Your task to perform on an android device: delete browsing data in the chrome app Image 0: 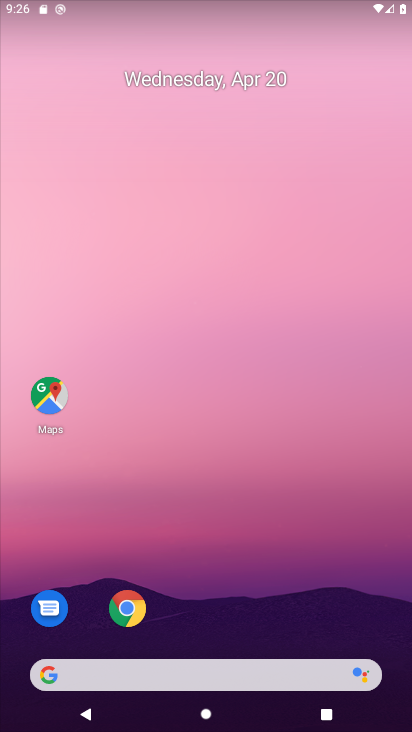
Step 0: click (128, 609)
Your task to perform on an android device: delete browsing data in the chrome app Image 1: 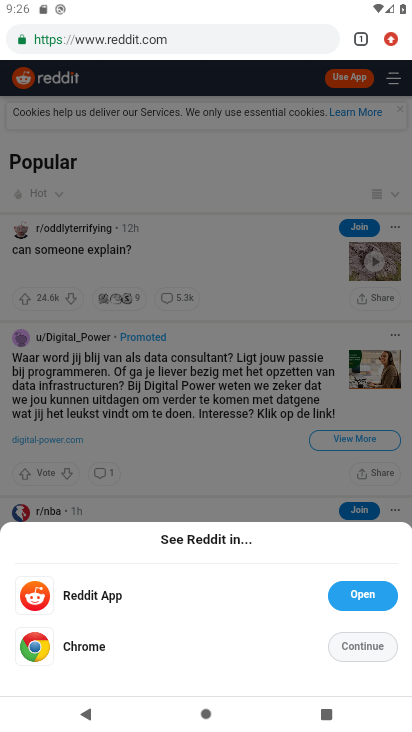
Step 1: click (393, 39)
Your task to perform on an android device: delete browsing data in the chrome app Image 2: 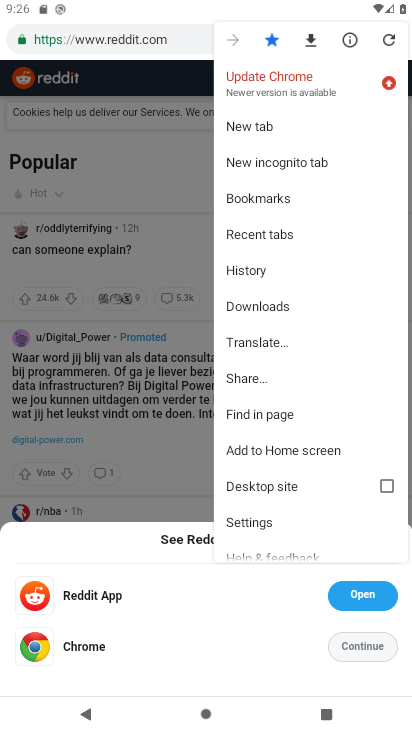
Step 2: click (266, 194)
Your task to perform on an android device: delete browsing data in the chrome app Image 3: 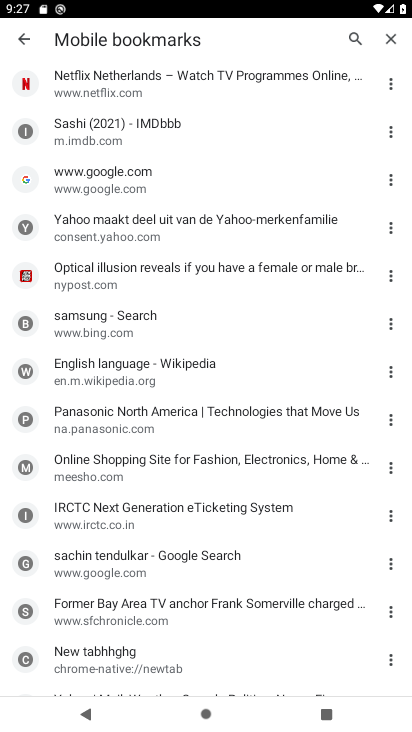
Step 3: click (26, 38)
Your task to perform on an android device: delete browsing data in the chrome app Image 4: 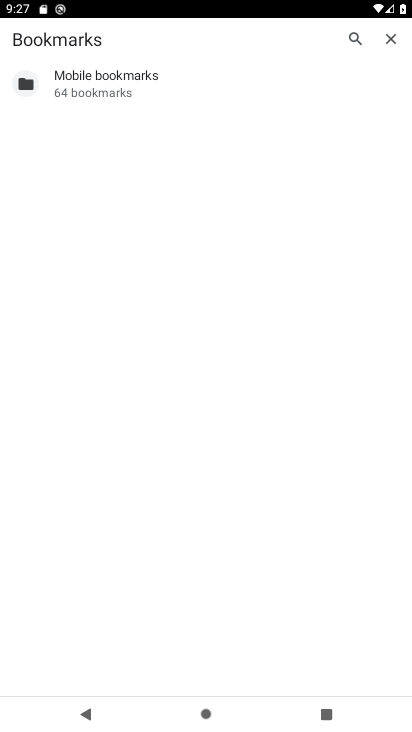
Step 4: click (388, 38)
Your task to perform on an android device: delete browsing data in the chrome app Image 5: 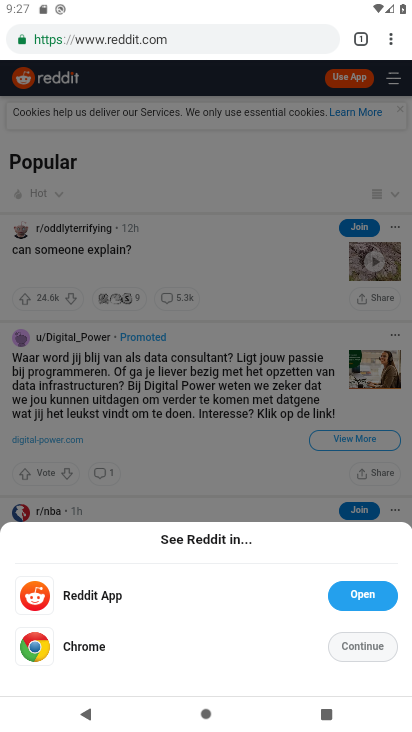
Step 5: click (391, 42)
Your task to perform on an android device: delete browsing data in the chrome app Image 6: 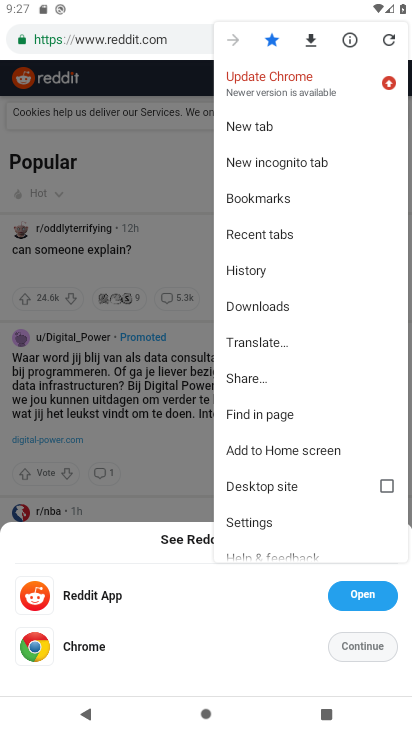
Step 6: click (251, 273)
Your task to perform on an android device: delete browsing data in the chrome app Image 7: 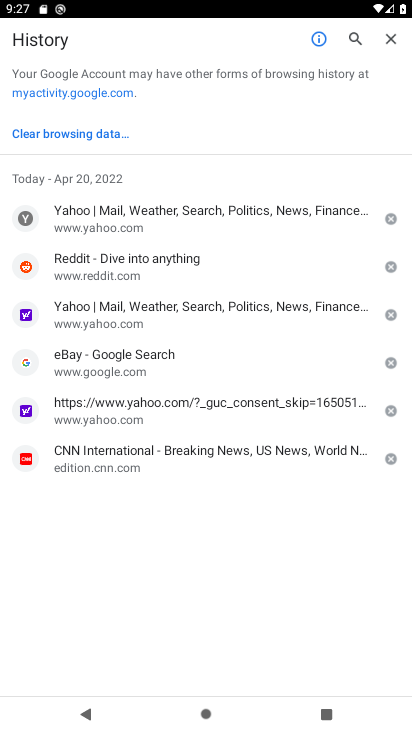
Step 7: click (78, 137)
Your task to perform on an android device: delete browsing data in the chrome app Image 8: 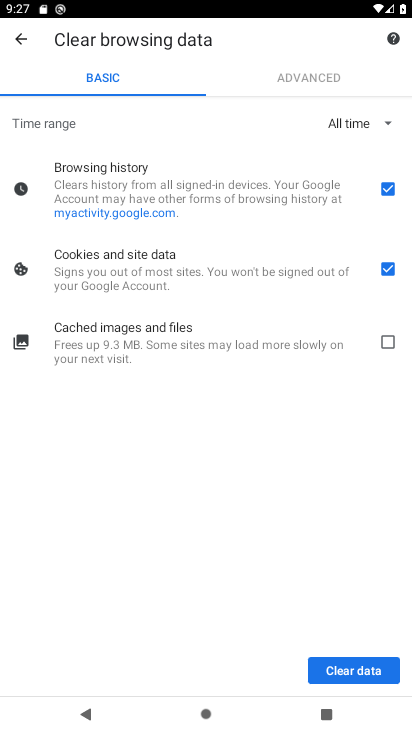
Step 8: click (390, 339)
Your task to perform on an android device: delete browsing data in the chrome app Image 9: 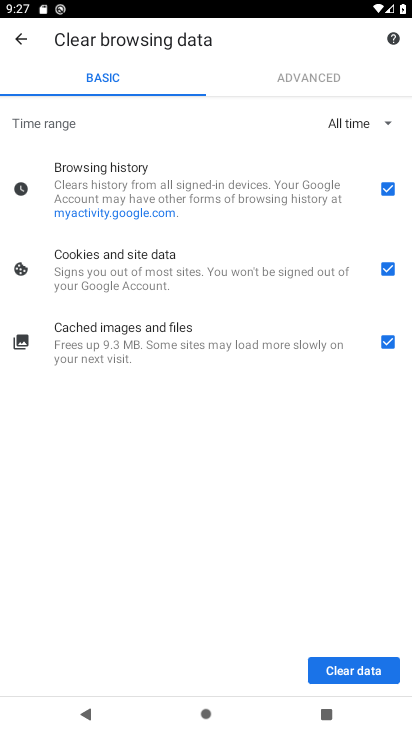
Step 9: click (348, 678)
Your task to perform on an android device: delete browsing data in the chrome app Image 10: 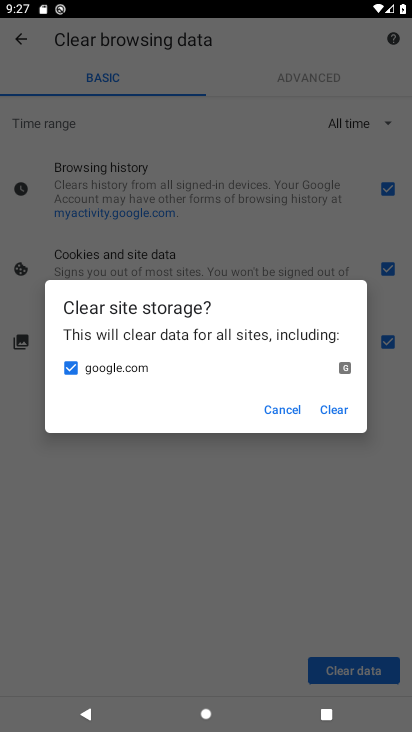
Step 10: click (337, 408)
Your task to perform on an android device: delete browsing data in the chrome app Image 11: 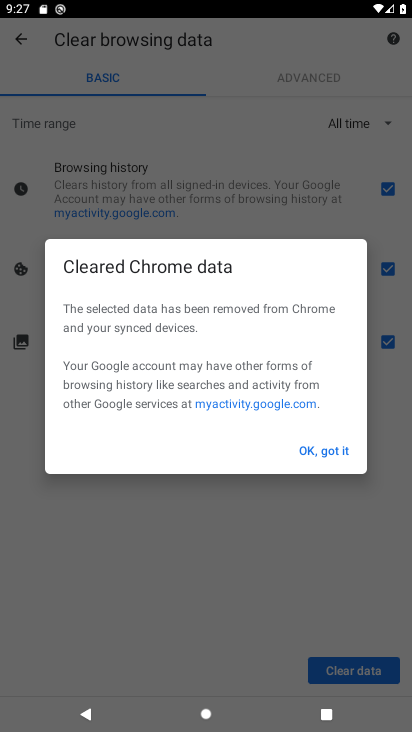
Step 11: click (307, 442)
Your task to perform on an android device: delete browsing data in the chrome app Image 12: 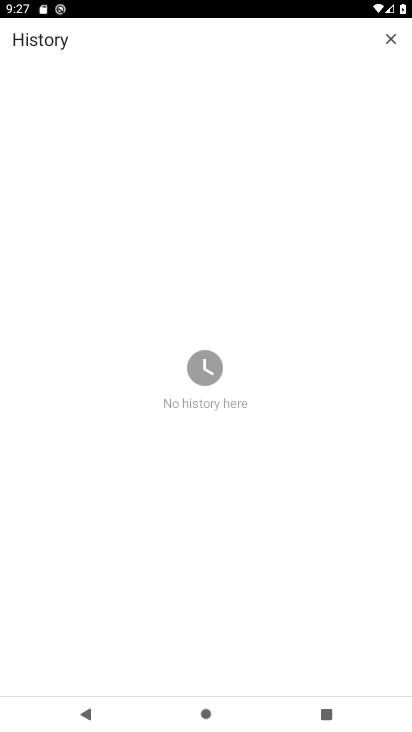
Step 12: task complete